Your task to perform on an android device: set the timer Image 0: 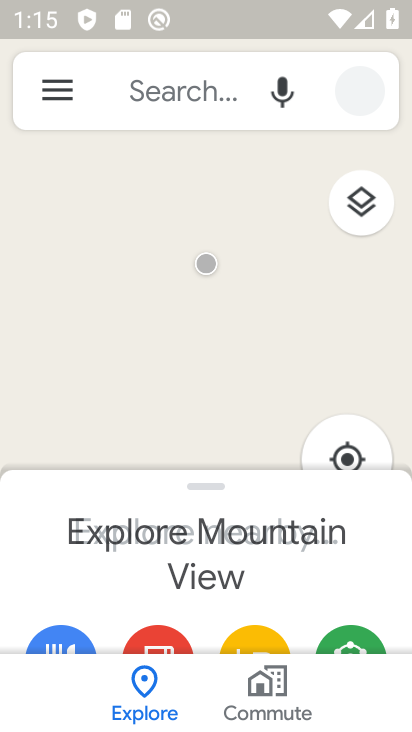
Step 0: press home button
Your task to perform on an android device: set the timer Image 1: 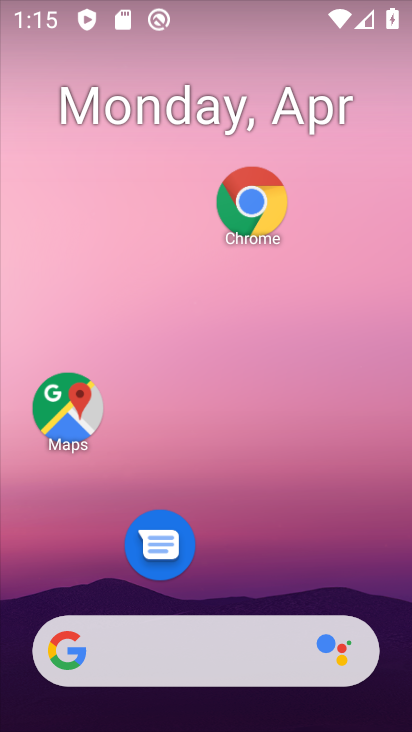
Step 1: drag from (321, 565) to (284, 86)
Your task to perform on an android device: set the timer Image 2: 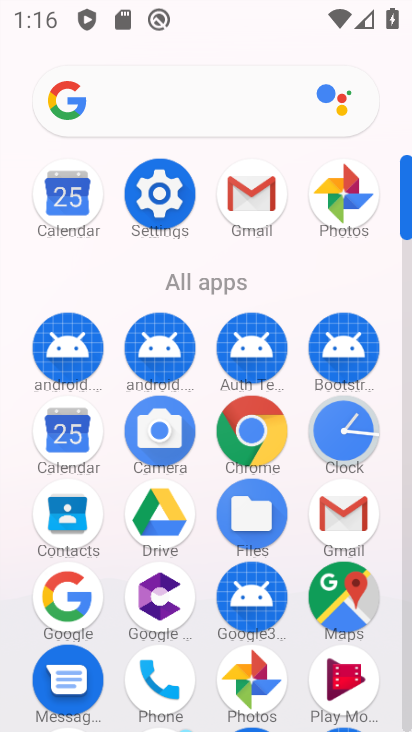
Step 2: click (371, 430)
Your task to perform on an android device: set the timer Image 3: 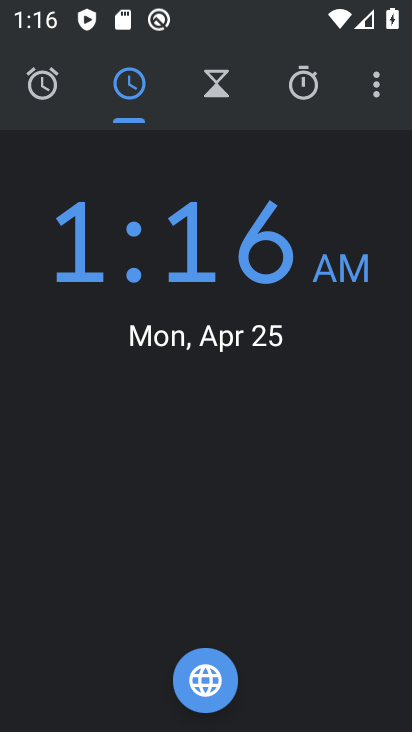
Step 3: click (316, 63)
Your task to perform on an android device: set the timer Image 4: 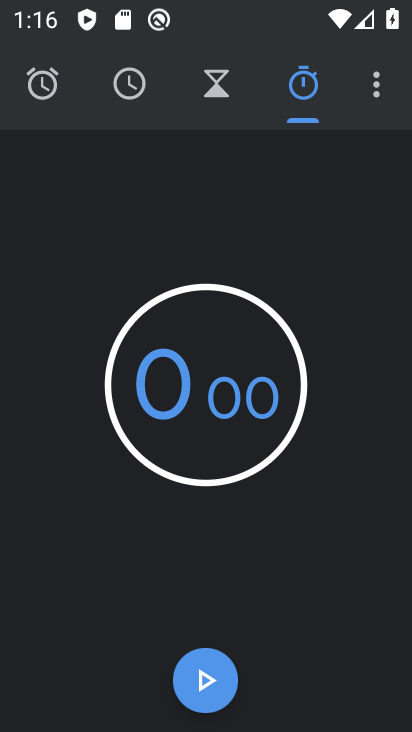
Step 4: click (222, 92)
Your task to perform on an android device: set the timer Image 5: 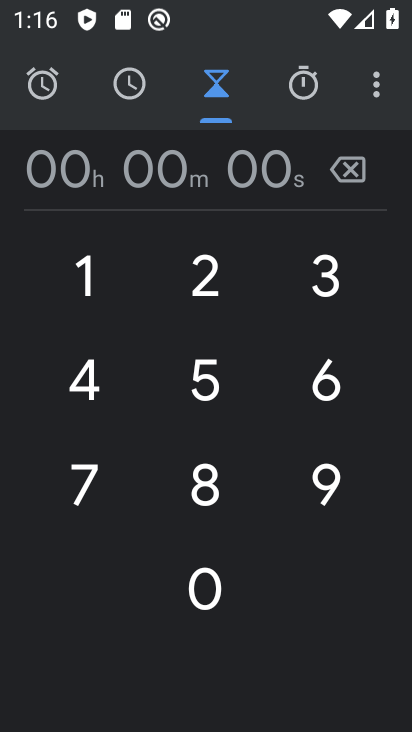
Step 5: click (214, 391)
Your task to perform on an android device: set the timer Image 6: 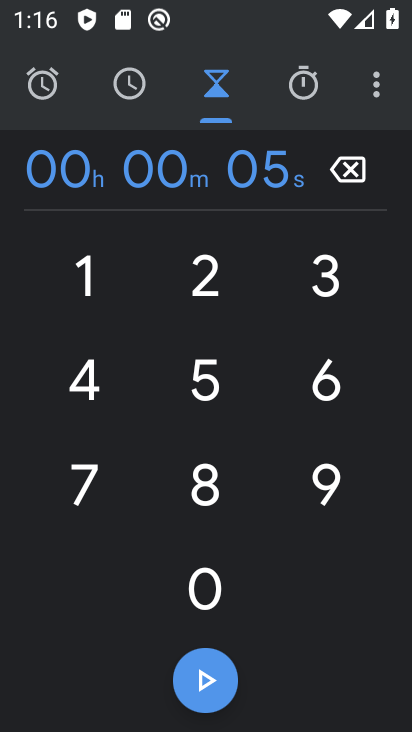
Step 6: click (234, 674)
Your task to perform on an android device: set the timer Image 7: 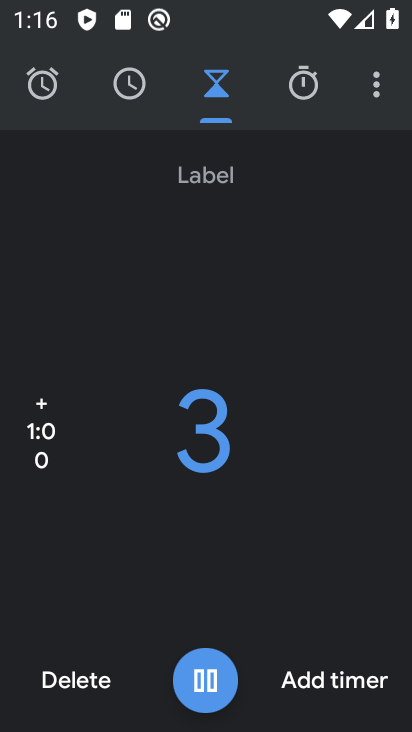
Step 7: task complete